Your task to perform on an android device: turn on sleep mode Image 0: 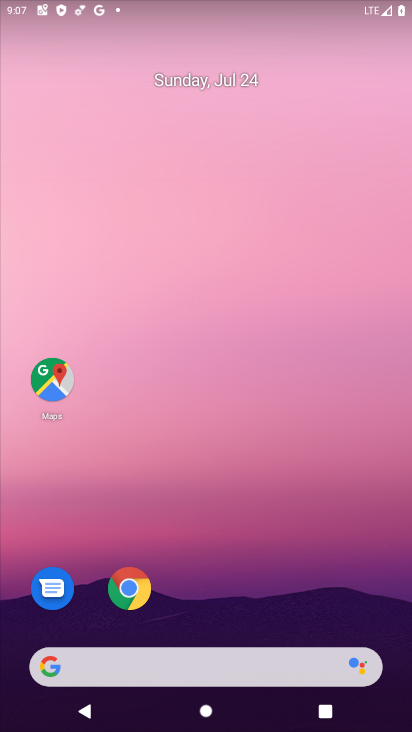
Step 0: drag from (231, 670) to (305, 86)
Your task to perform on an android device: turn on sleep mode Image 1: 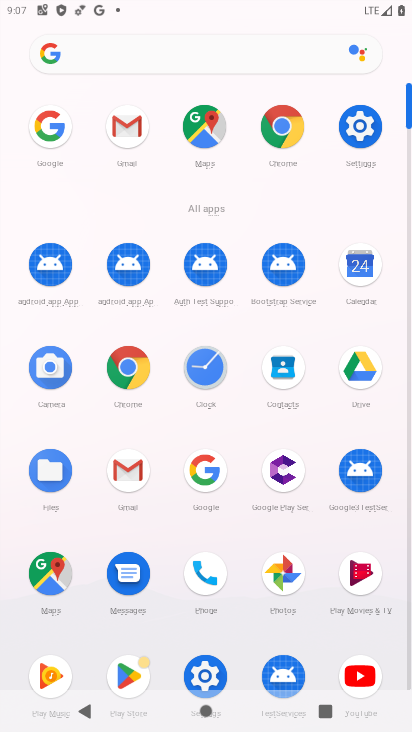
Step 1: click (361, 126)
Your task to perform on an android device: turn on sleep mode Image 2: 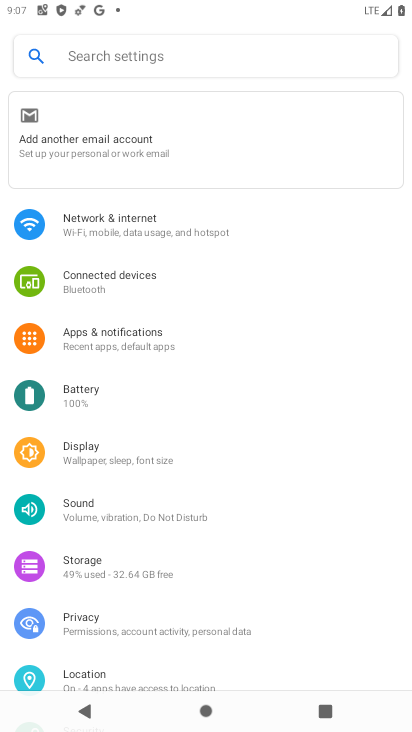
Step 2: click (361, 126)
Your task to perform on an android device: turn on sleep mode Image 3: 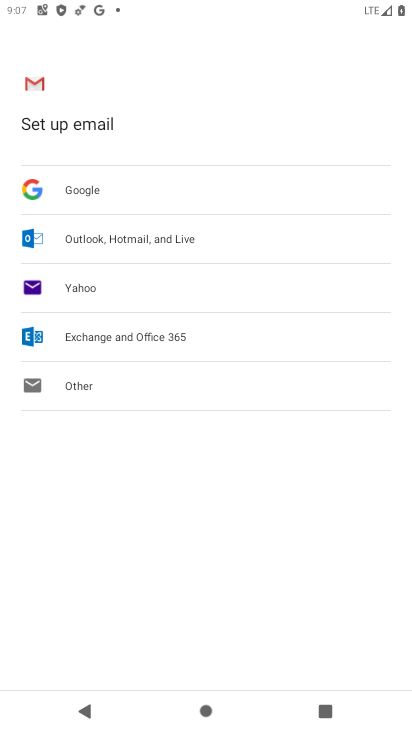
Step 3: press home button
Your task to perform on an android device: turn on sleep mode Image 4: 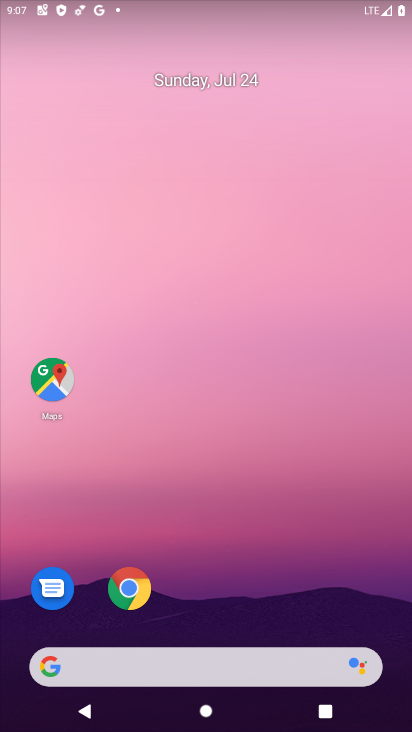
Step 4: drag from (181, 675) to (253, 0)
Your task to perform on an android device: turn on sleep mode Image 5: 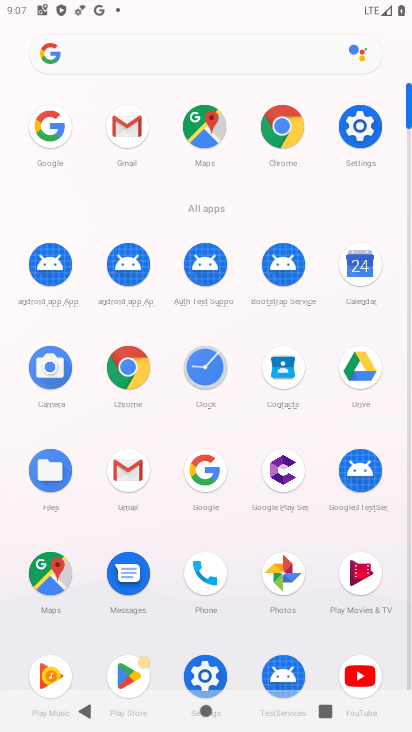
Step 5: click (341, 142)
Your task to perform on an android device: turn on sleep mode Image 6: 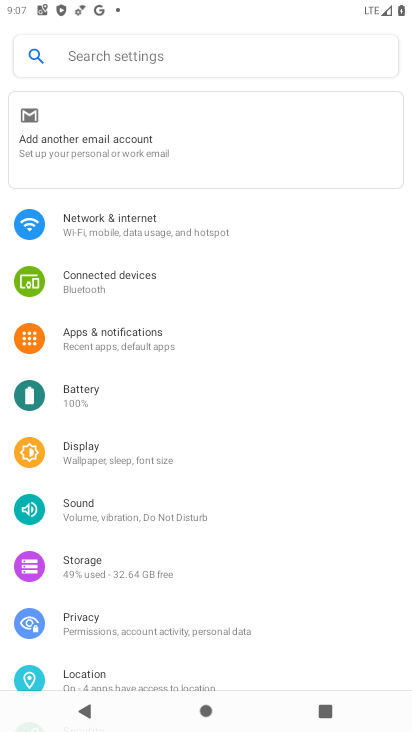
Step 6: click (99, 460)
Your task to perform on an android device: turn on sleep mode Image 7: 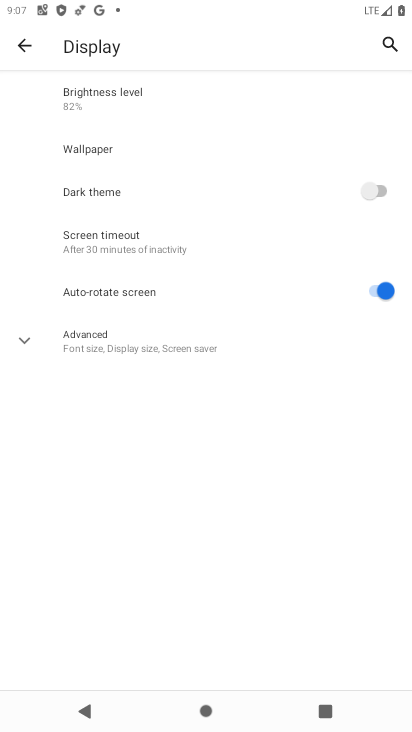
Step 7: click (84, 348)
Your task to perform on an android device: turn on sleep mode Image 8: 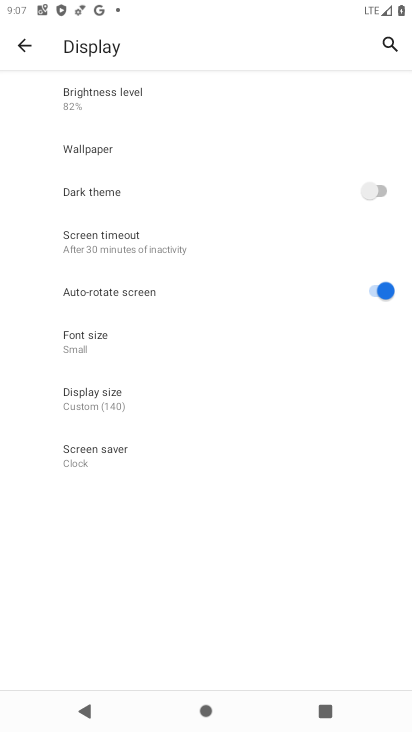
Step 8: task complete